Your task to perform on an android device: turn on translation in the chrome app Image 0: 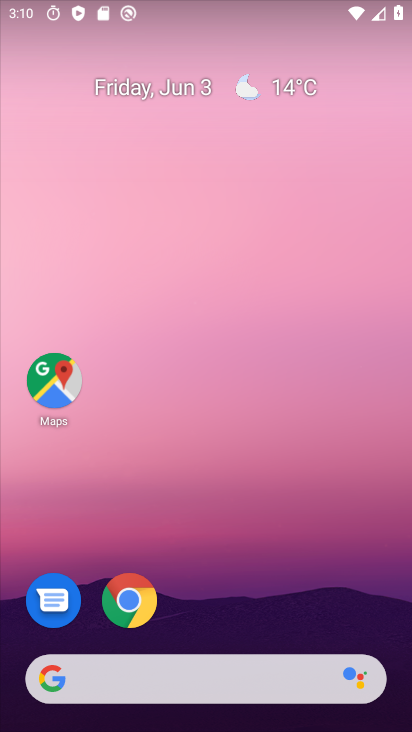
Step 0: press back button
Your task to perform on an android device: turn on translation in the chrome app Image 1: 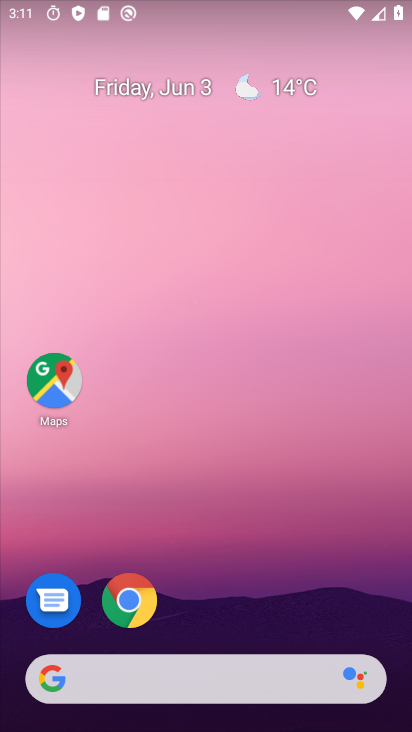
Step 1: press back button
Your task to perform on an android device: turn on translation in the chrome app Image 2: 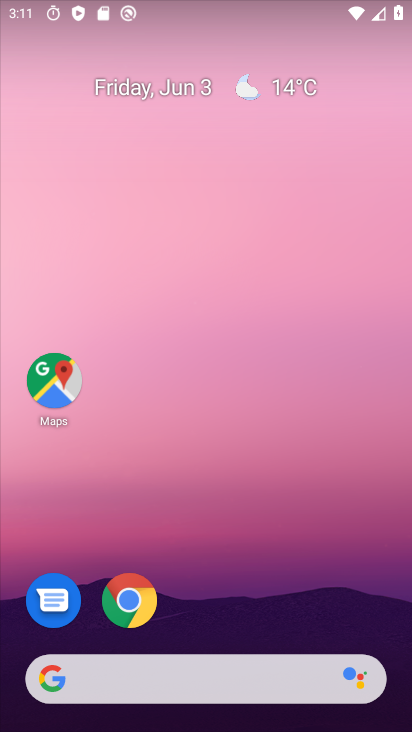
Step 2: drag from (348, 581) to (244, 4)
Your task to perform on an android device: turn on translation in the chrome app Image 3: 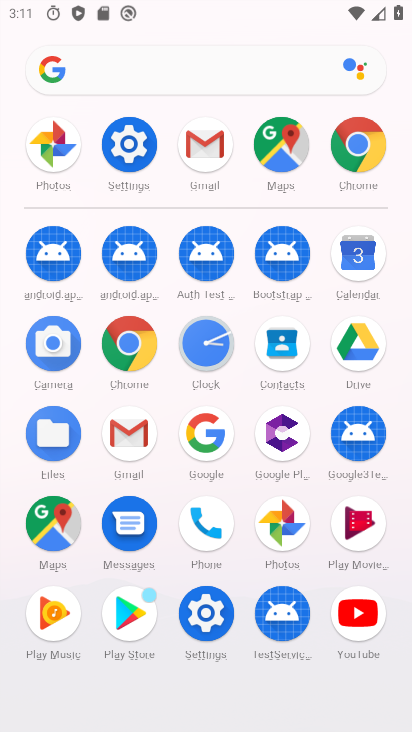
Step 3: click (127, 338)
Your task to perform on an android device: turn on translation in the chrome app Image 4: 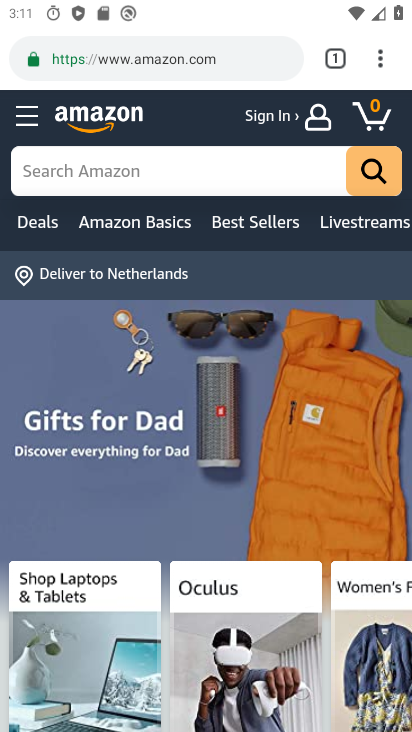
Step 4: drag from (377, 52) to (191, 623)
Your task to perform on an android device: turn on translation in the chrome app Image 5: 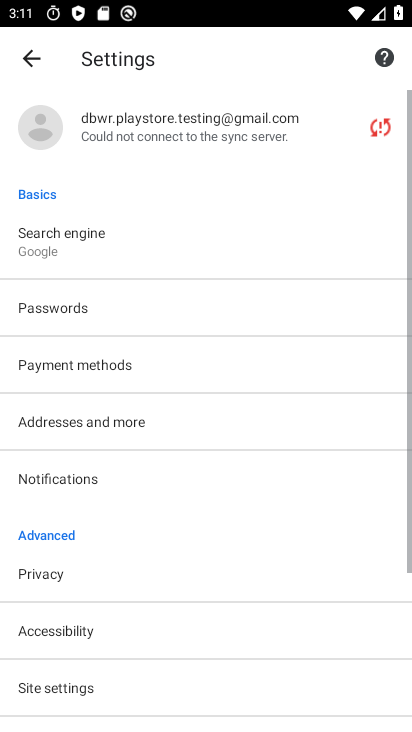
Step 5: drag from (205, 640) to (249, 143)
Your task to perform on an android device: turn on translation in the chrome app Image 6: 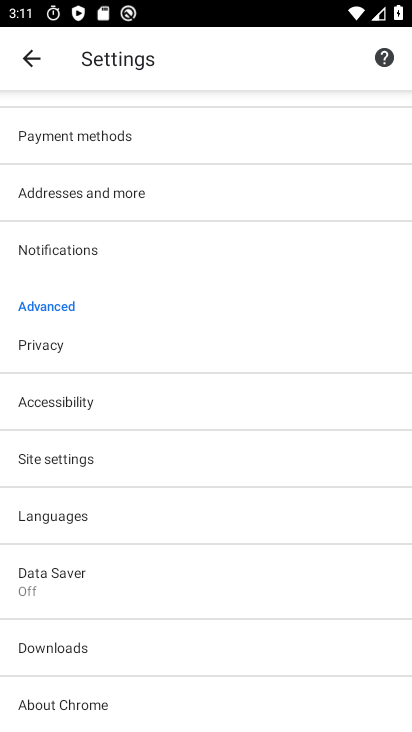
Step 6: click (71, 517)
Your task to perform on an android device: turn on translation in the chrome app Image 7: 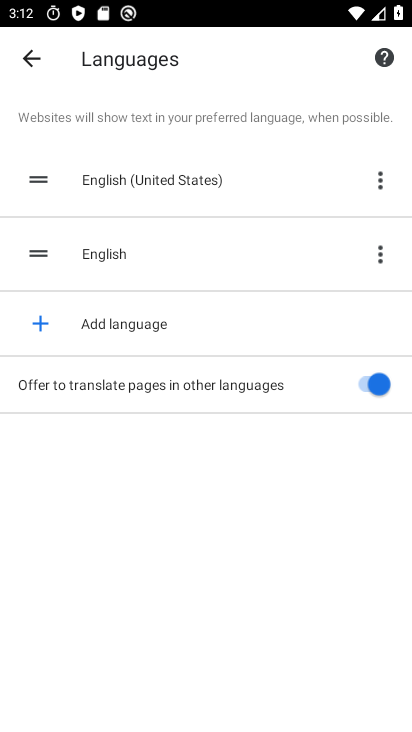
Step 7: task complete